Your task to perform on an android device: turn notification dots off Image 0: 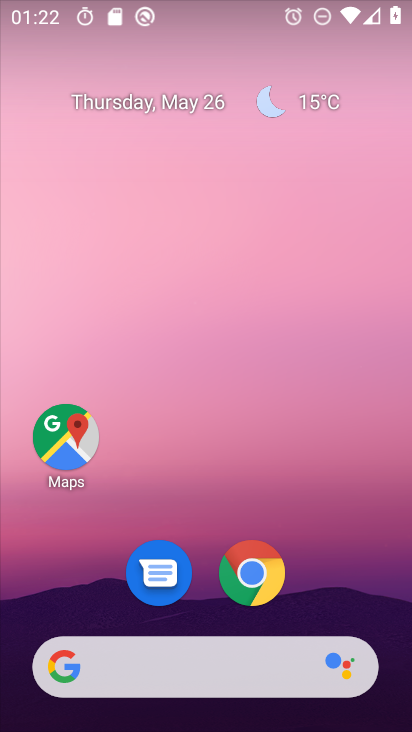
Step 0: drag from (358, 606) to (327, 16)
Your task to perform on an android device: turn notification dots off Image 1: 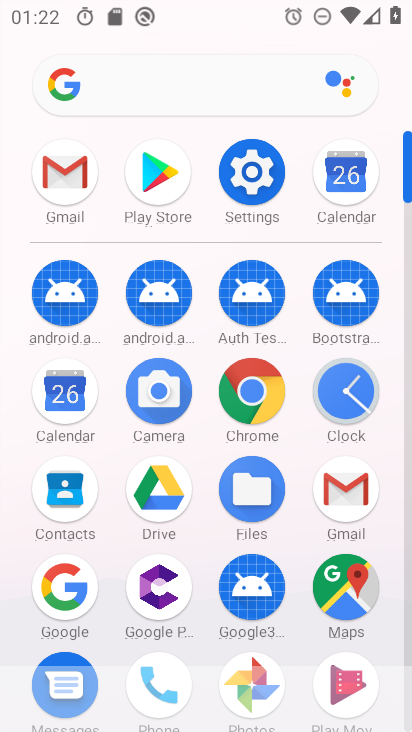
Step 1: click (250, 180)
Your task to perform on an android device: turn notification dots off Image 2: 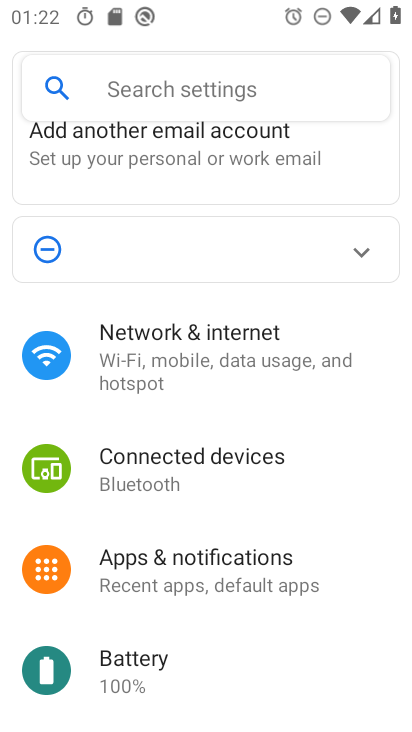
Step 2: click (191, 562)
Your task to perform on an android device: turn notification dots off Image 3: 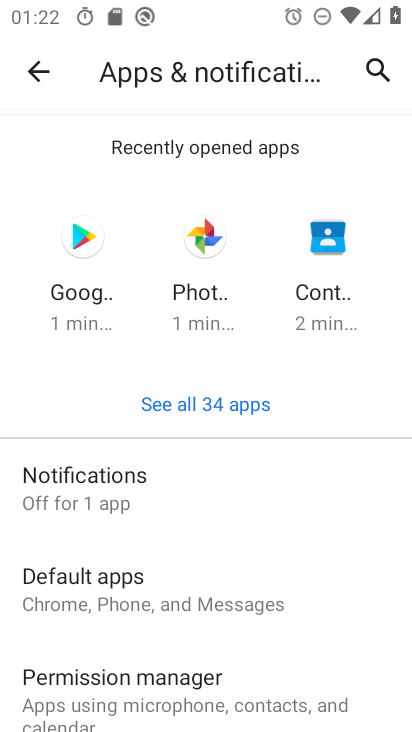
Step 3: drag from (196, 561) to (225, 337)
Your task to perform on an android device: turn notification dots off Image 4: 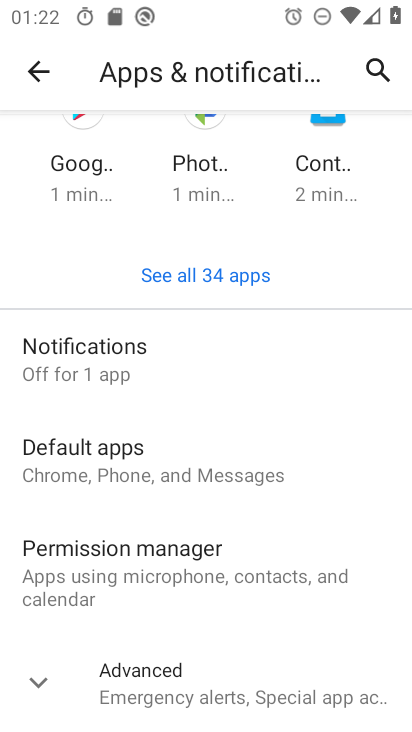
Step 4: click (78, 364)
Your task to perform on an android device: turn notification dots off Image 5: 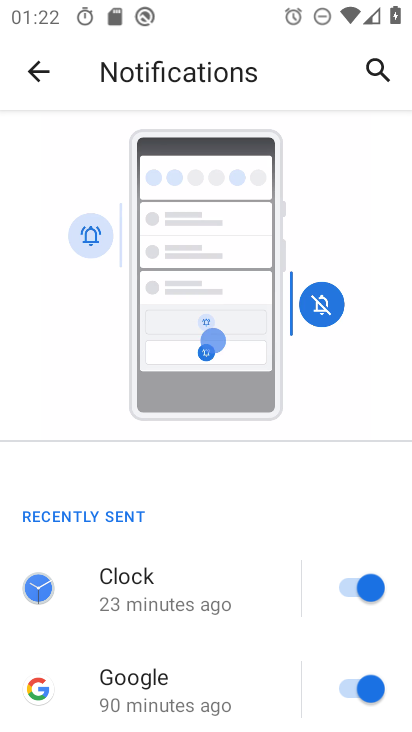
Step 5: drag from (218, 605) to (166, 120)
Your task to perform on an android device: turn notification dots off Image 6: 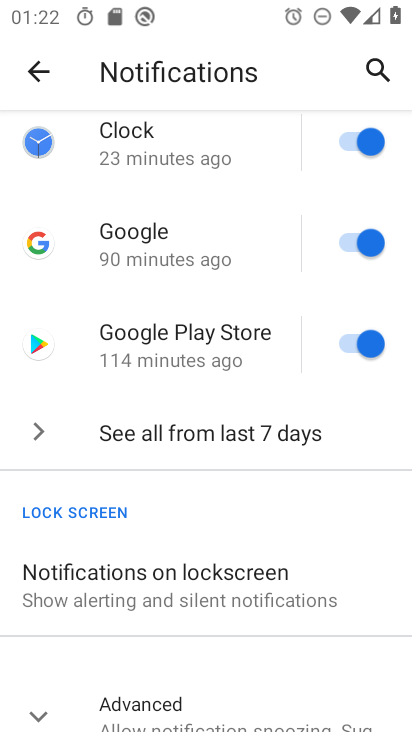
Step 6: drag from (67, 605) to (92, 243)
Your task to perform on an android device: turn notification dots off Image 7: 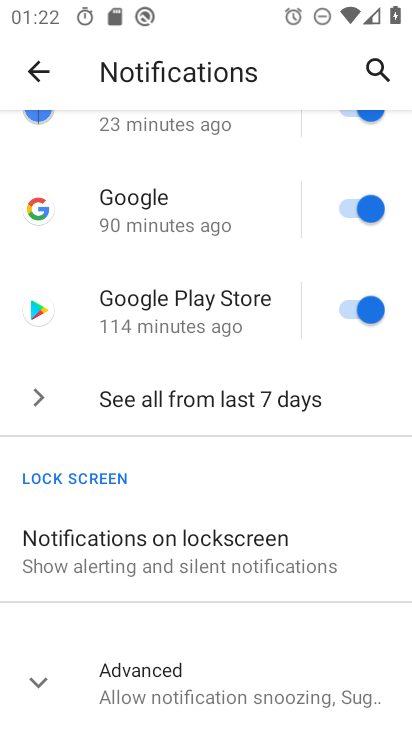
Step 7: click (31, 694)
Your task to perform on an android device: turn notification dots off Image 8: 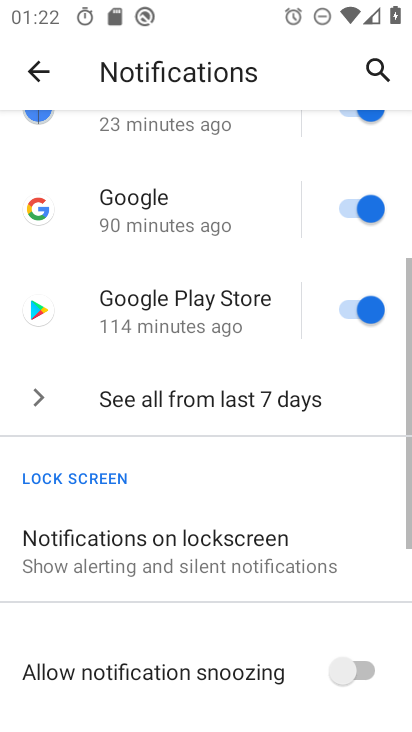
Step 8: drag from (170, 667) to (206, 138)
Your task to perform on an android device: turn notification dots off Image 9: 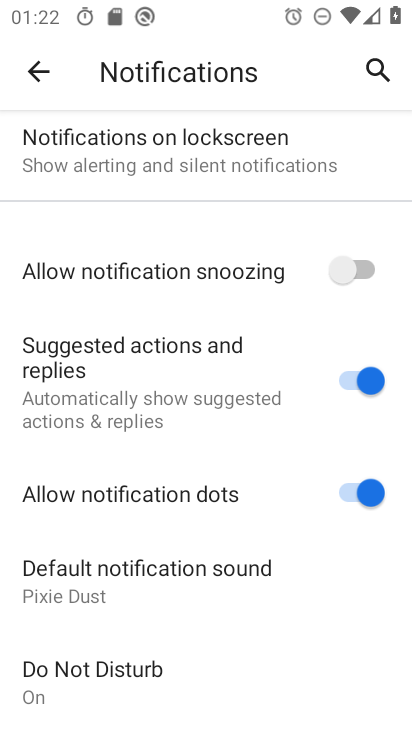
Step 9: click (364, 489)
Your task to perform on an android device: turn notification dots off Image 10: 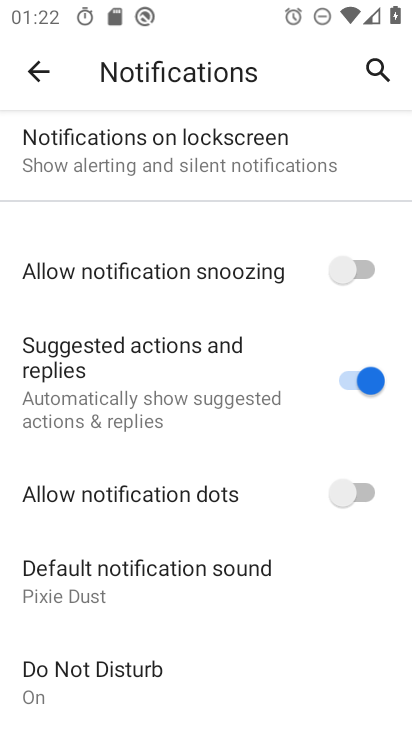
Step 10: task complete